Your task to perform on an android device: uninstall "Clock" Image 0: 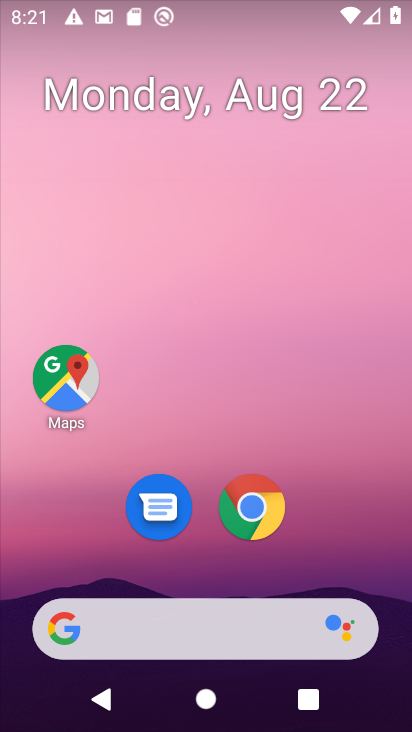
Step 0: drag from (192, 593) to (242, 97)
Your task to perform on an android device: uninstall "Clock" Image 1: 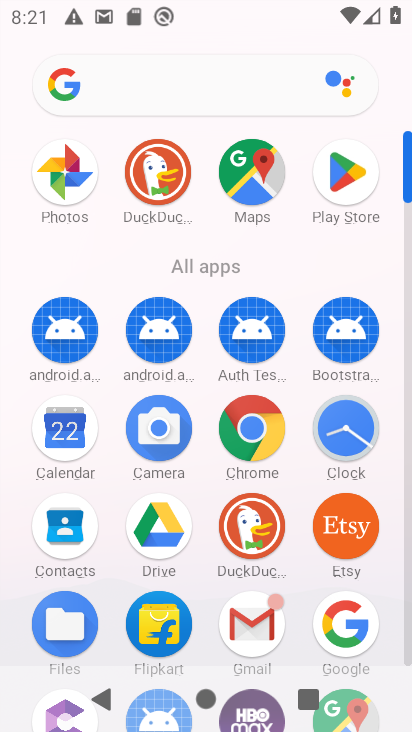
Step 1: click (347, 192)
Your task to perform on an android device: uninstall "Clock" Image 2: 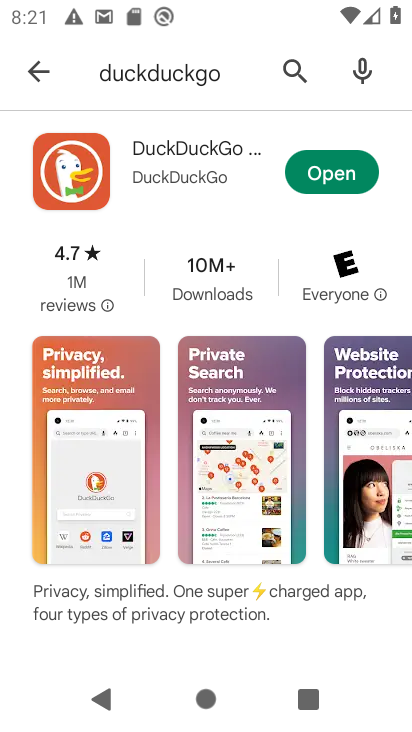
Step 2: click (172, 77)
Your task to perform on an android device: uninstall "Clock" Image 3: 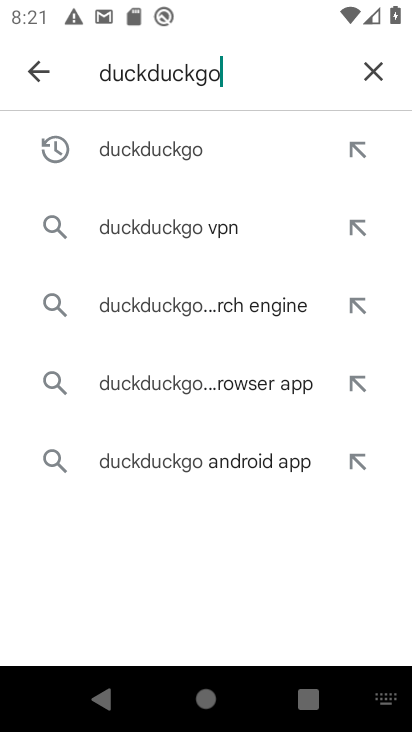
Step 3: click (367, 65)
Your task to perform on an android device: uninstall "Clock" Image 4: 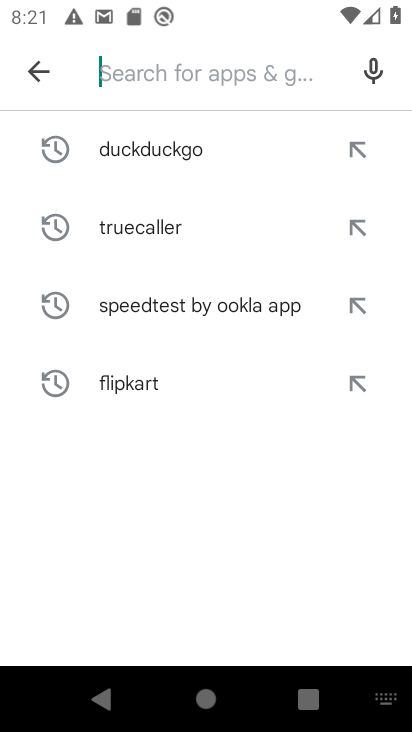
Step 4: type "clock"
Your task to perform on an android device: uninstall "Clock" Image 5: 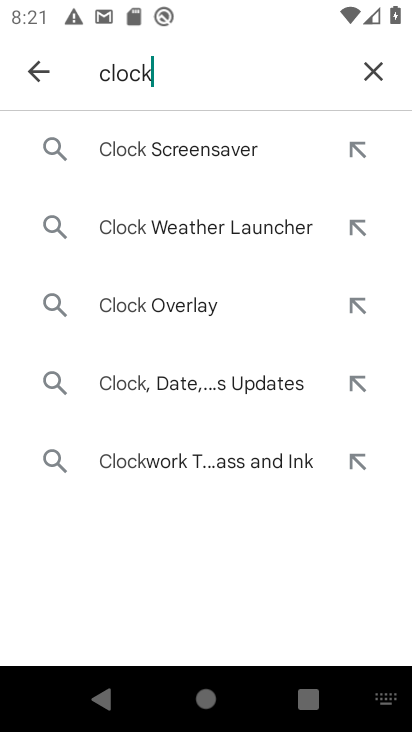
Step 5: click (94, 466)
Your task to perform on an android device: uninstall "Clock" Image 6: 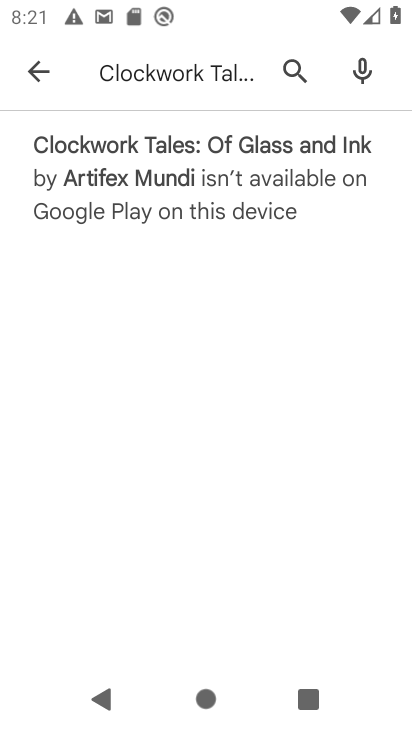
Step 6: click (30, 69)
Your task to perform on an android device: uninstall "Clock" Image 7: 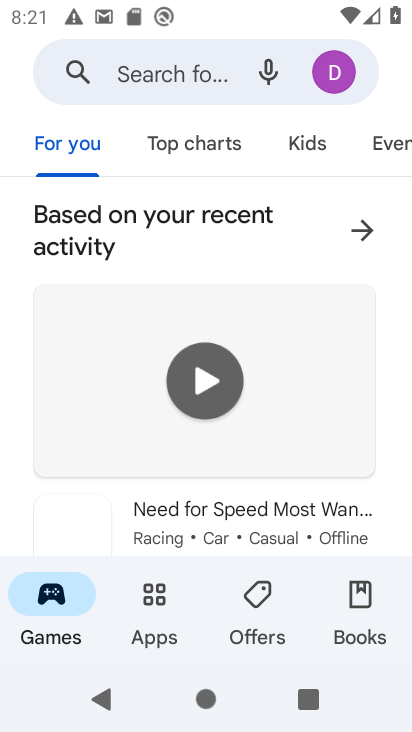
Step 7: click (169, 68)
Your task to perform on an android device: uninstall "Clock" Image 8: 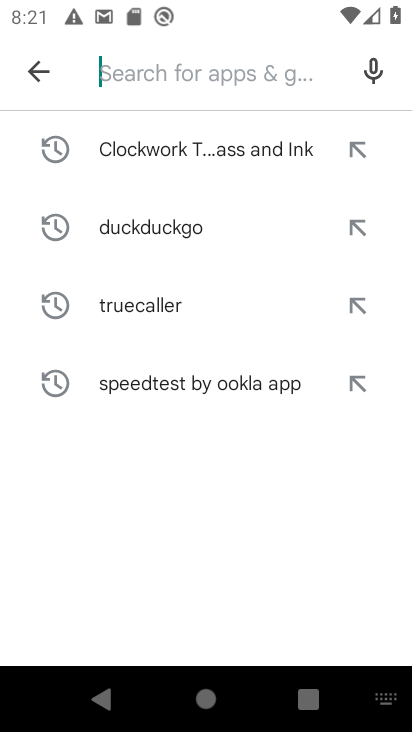
Step 8: type "Clock"
Your task to perform on an android device: uninstall "Clock" Image 9: 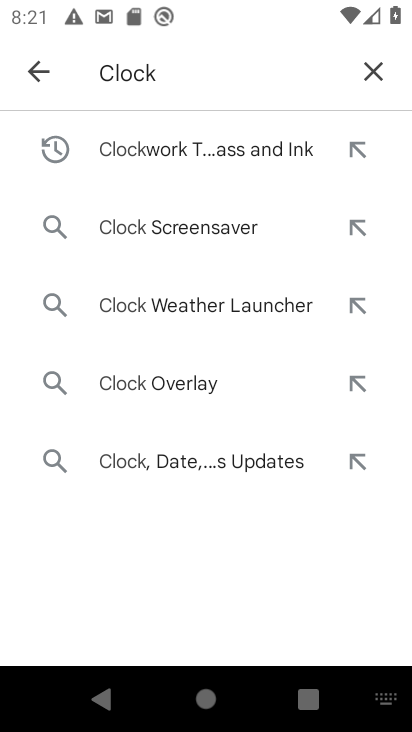
Step 9: click (151, 305)
Your task to perform on an android device: uninstall "Clock" Image 10: 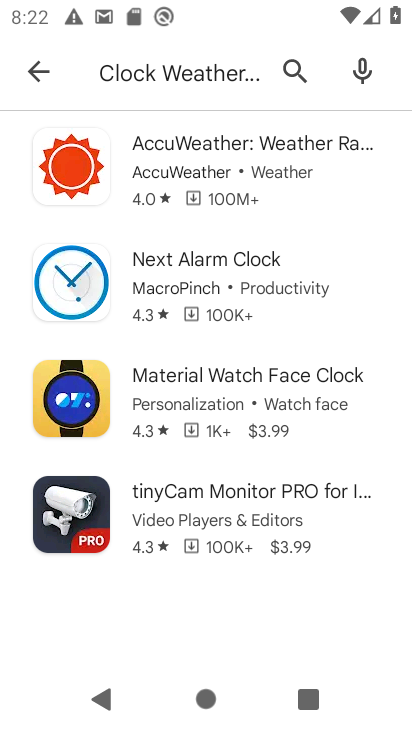
Step 10: task complete